Your task to perform on an android device: turn on translation in the chrome app Image 0: 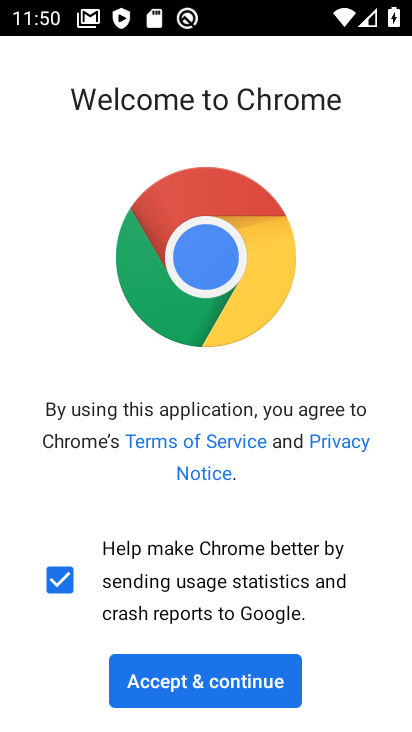
Step 0: click (239, 673)
Your task to perform on an android device: turn on translation in the chrome app Image 1: 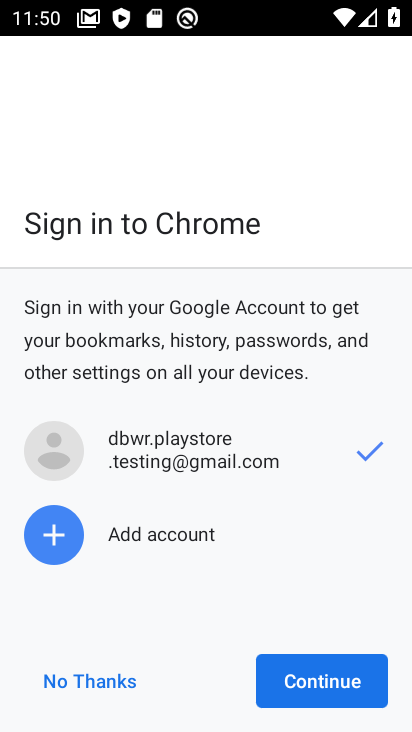
Step 1: click (348, 686)
Your task to perform on an android device: turn on translation in the chrome app Image 2: 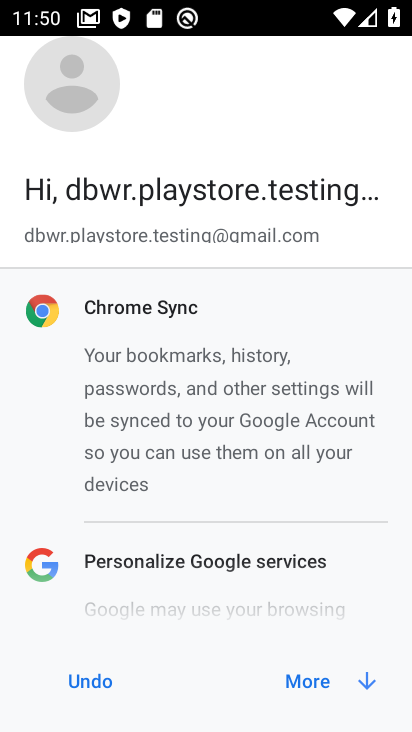
Step 2: click (347, 684)
Your task to perform on an android device: turn on translation in the chrome app Image 3: 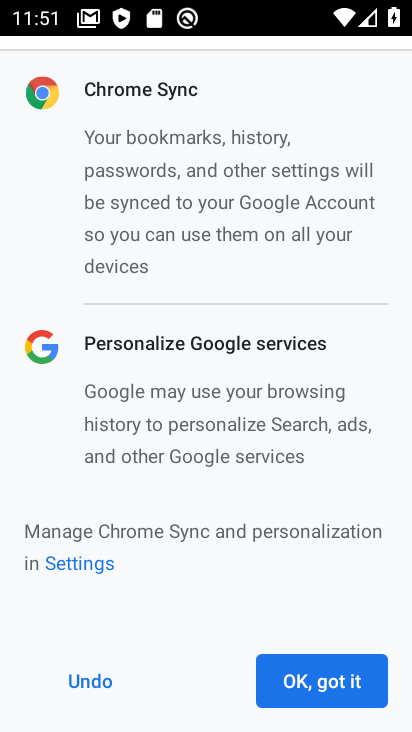
Step 3: click (326, 688)
Your task to perform on an android device: turn on translation in the chrome app Image 4: 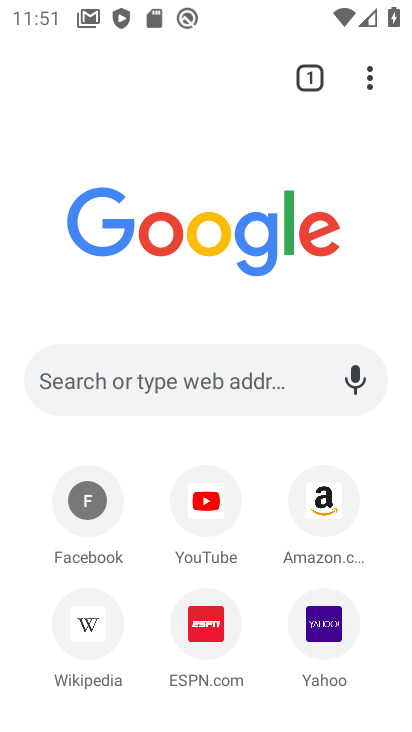
Step 4: click (370, 75)
Your task to perform on an android device: turn on translation in the chrome app Image 5: 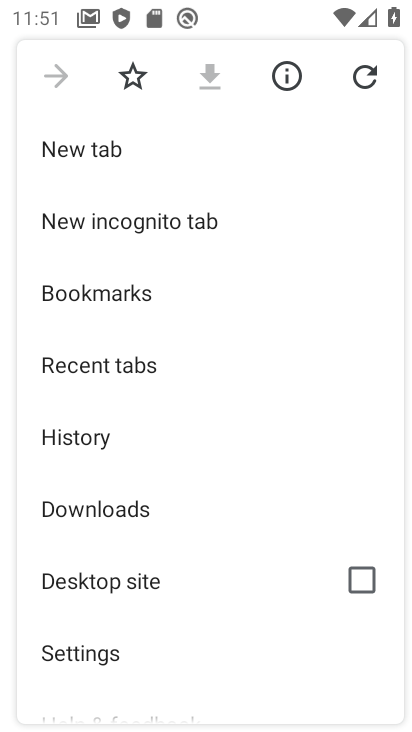
Step 5: click (120, 668)
Your task to perform on an android device: turn on translation in the chrome app Image 6: 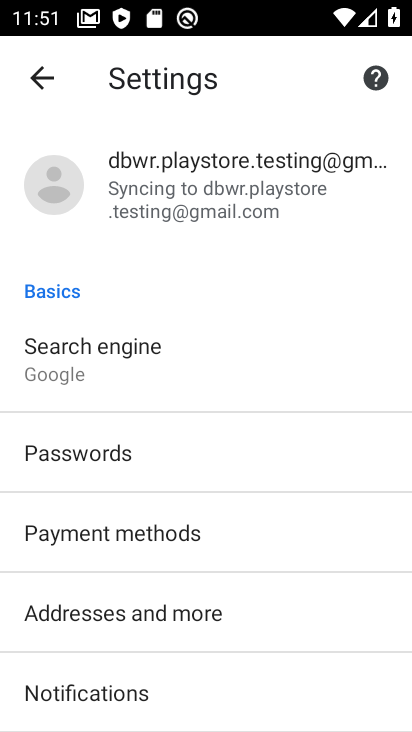
Step 6: drag from (113, 679) to (159, 336)
Your task to perform on an android device: turn on translation in the chrome app Image 7: 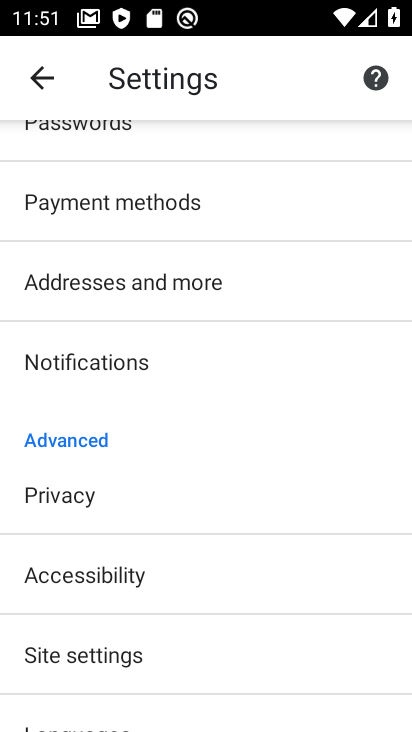
Step 7: drag from (150, 635) to (174, 365)
Your task to perform on an android device: turn on translation in the chrome app Image 8: 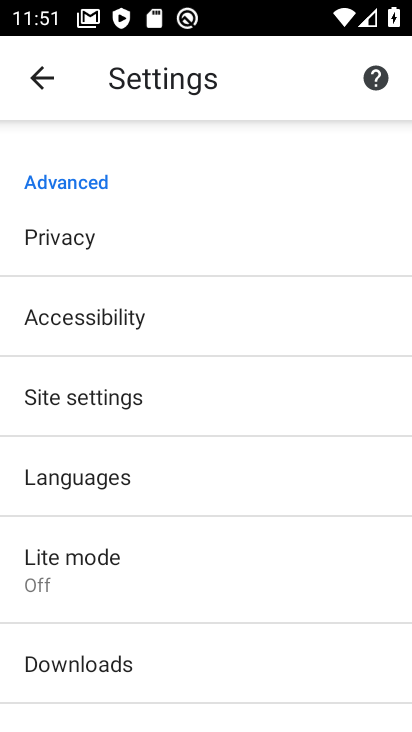
Step 8: click (136, 564)
Your task to perform on an android device: turn on translation in the chrome app Image 9: 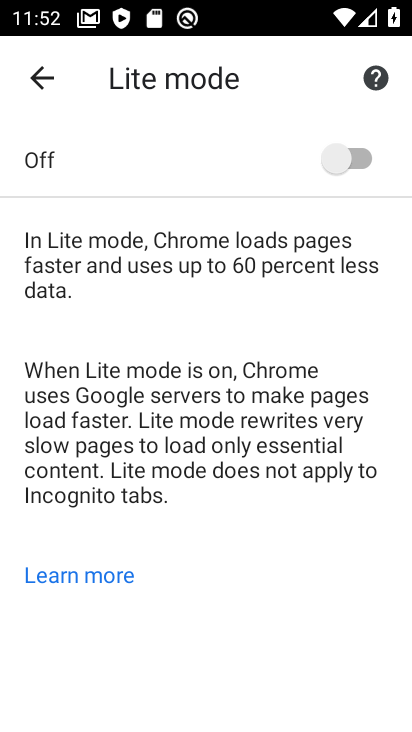
Step 9: click (362, 181)
Your task to perform on an android device: turn on translation in the chrome app Image 10: 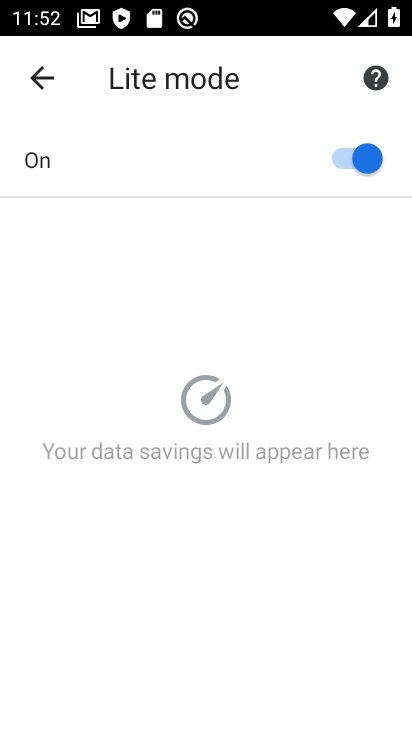
Step 10: task complete